Your task to perform on an android device: delete a single message in the gmail app Image 0: 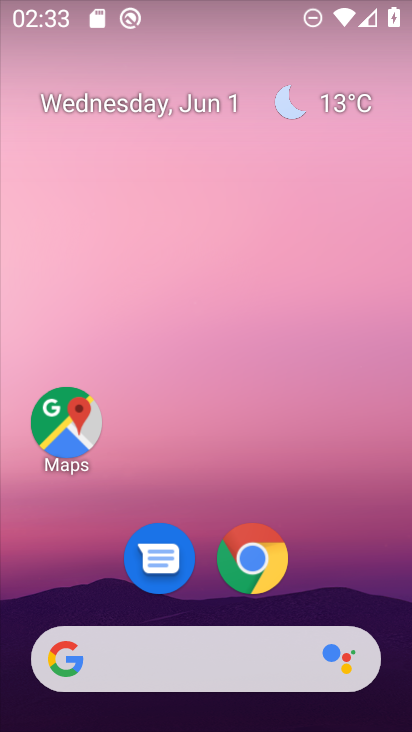
Step 0: drag from (400, 706) to (370, 289)
Your task to perform on an android device: delete a single message in the gmail app Image 1: 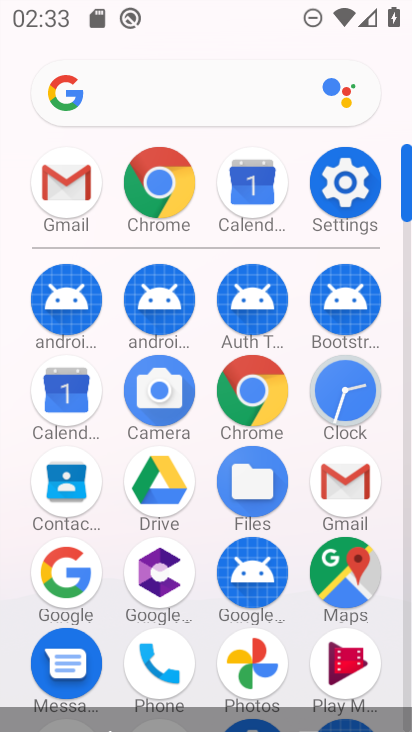
Step 1: click (342, 483)
Your task to perform on an android device: delete a single message in the gmail app Image 2: 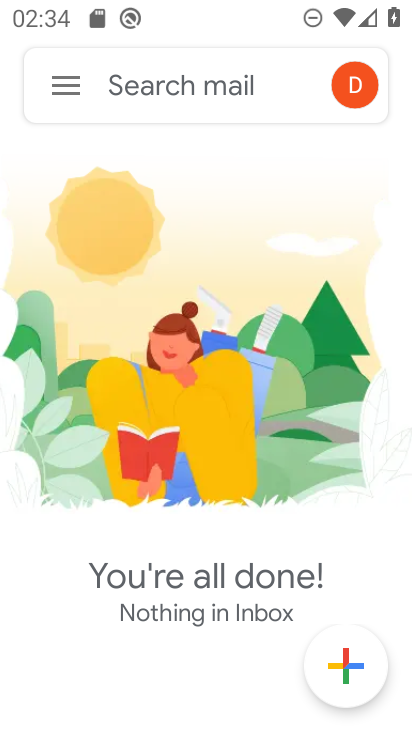
Step 2: click (58, 84)
Your task to perform on an android device: delete a single message in the gmail app Image 3: 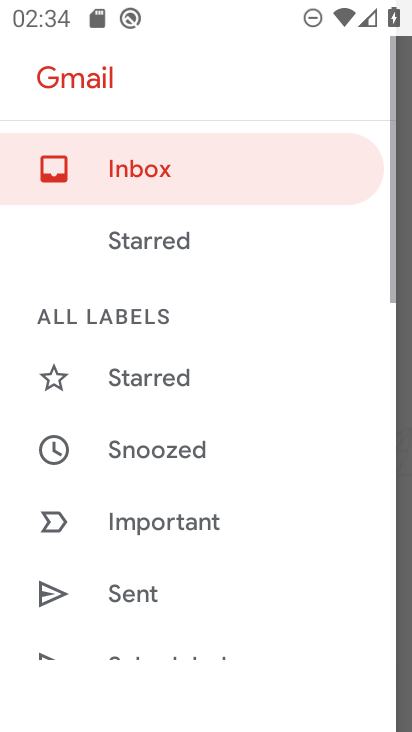
Step 3: click (113, 169)
Your task to perform on an android device: delete a single message in the gmail app Image 4: 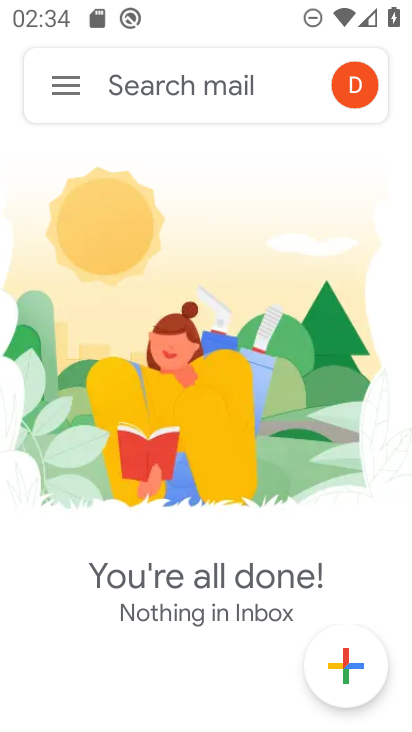
Step 4: task complete